Your task to perform on an android device: Open the stopwatch Image 0: 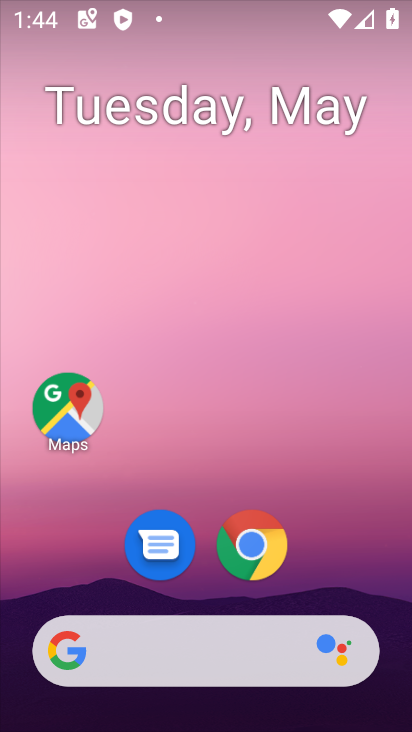
Step 0: drag from (324, 577) to (260, 29)
Your task to perform on an android device: Open the stopwatch Image 1: 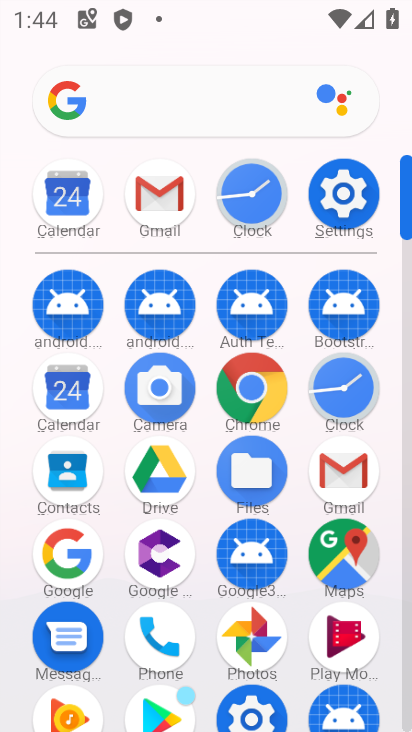
Step 1: click (346, 399)
Your task to perform on an android device: Open the stopwatch Image 2: 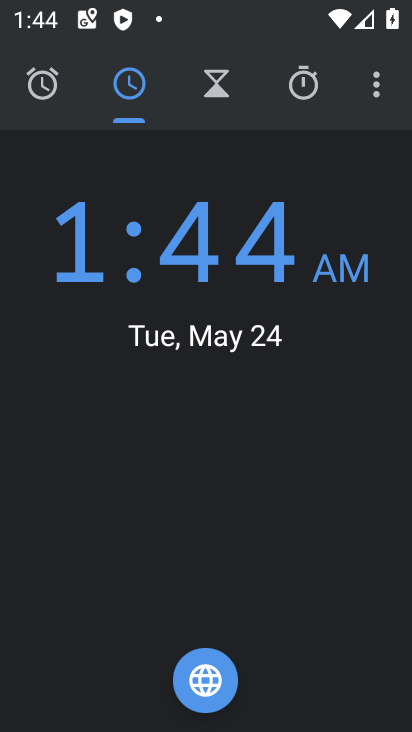
Step 2: click (303, 86)
Your task to perform on an android device: Open the stopwatch Image 3: 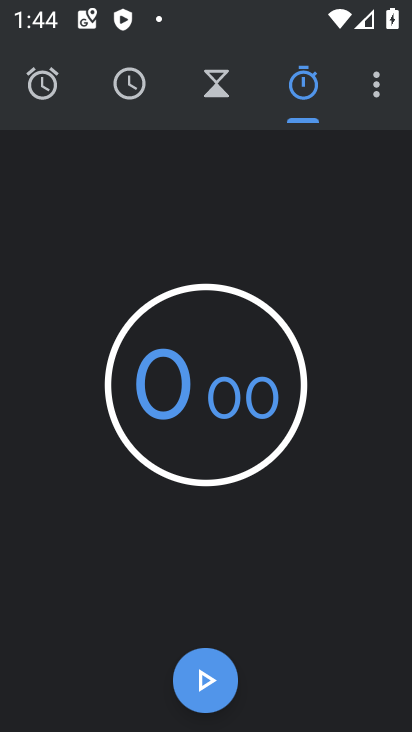
Step 3: task complete